Your task to perform on an android device: turn off location history Image 0: 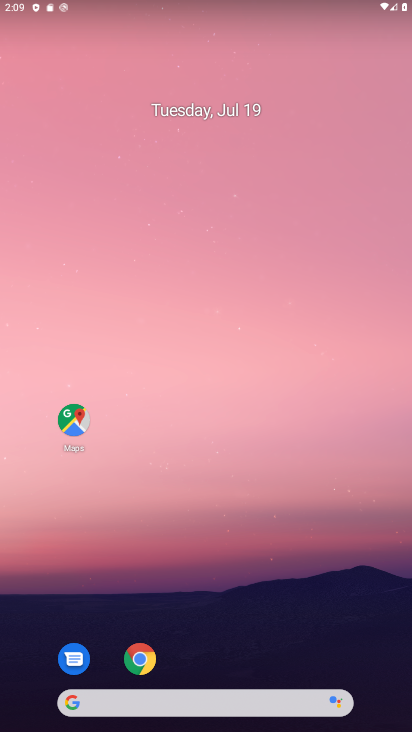
Step 0: click (75, 430)
Your task to perform on an android device: turn off location history Image 1: 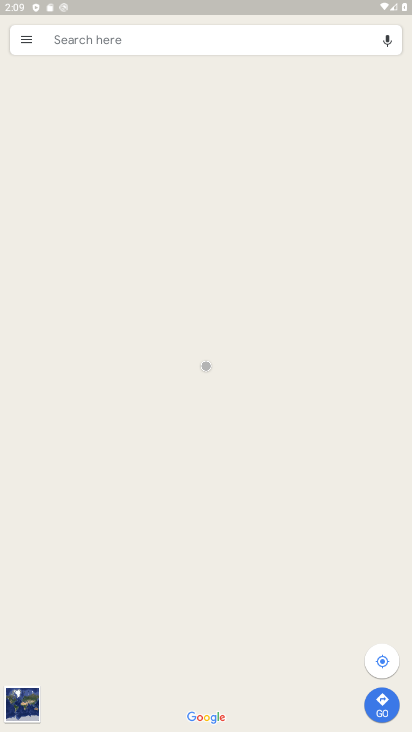
Step 1: click (28, 48)
Your task to perform on an android device: turn off location history Image 2: 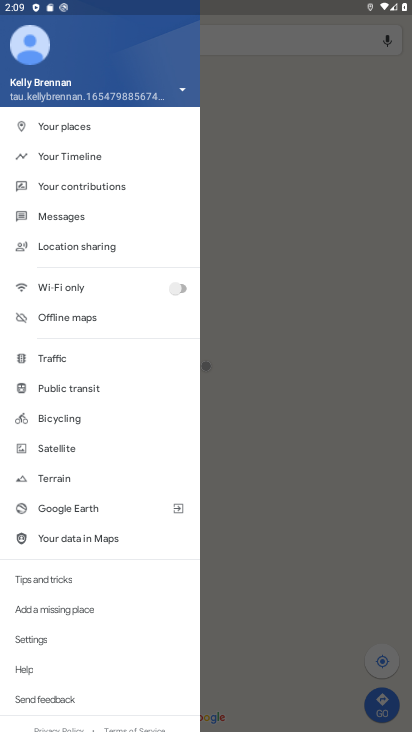
Step 2: click (52, 154)
Your task to perform on an android device: turn off location history Image 3: 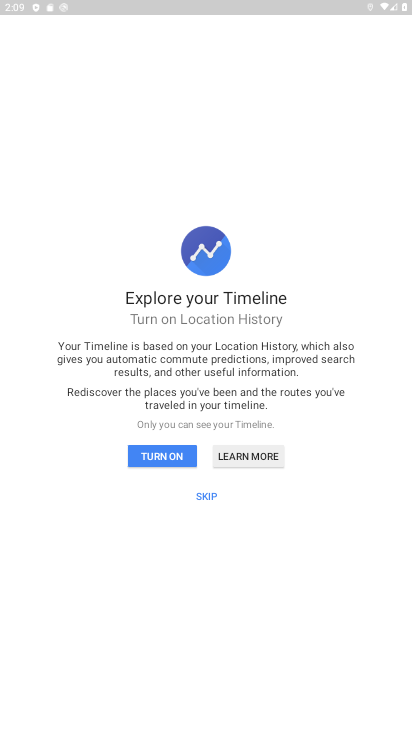
Step 3: click (203, 499)
Your task to perform on an android device: turn off location history Image 4: 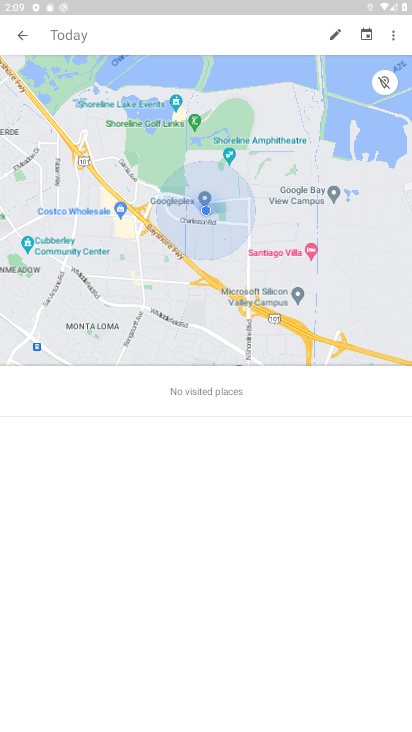
Step 4: click (391, 45)
Your task to perform on an android device: turn off location history Image 5: 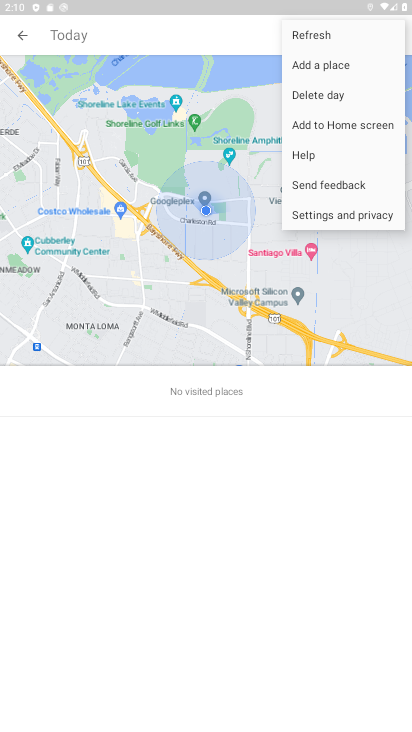
Step 5: click (352, 211)
Your task to perform on an android device: turn off location history Image 6: 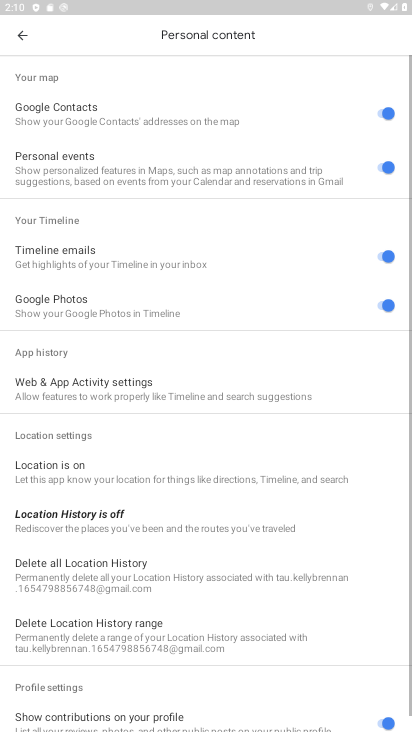
Step 6: click (107, 516)
Your task to perform on an android device: turn off location history Image 7: 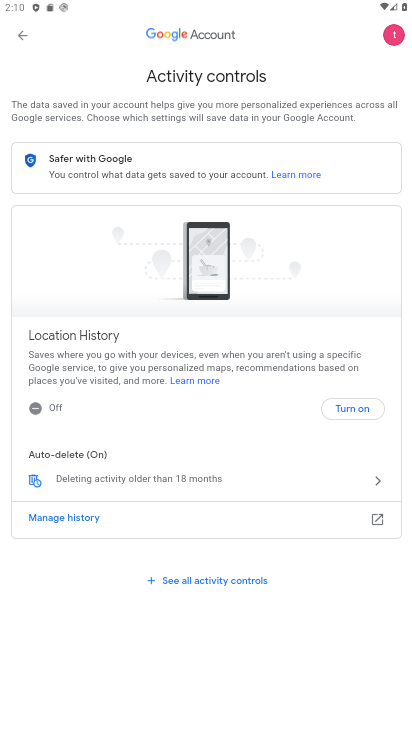
Step 7: task complete